Your task to perform on an android device: visit the assistant section in the google photos Image 0: 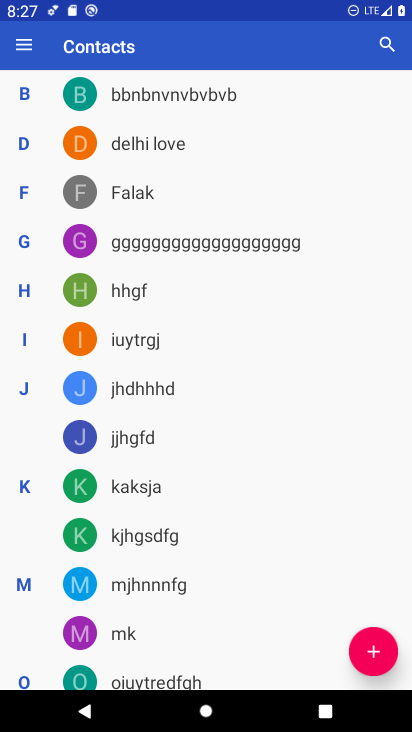
Step 0: press home button
Your task to perform on an android device: visit the assistant section in the google photos Image 1: 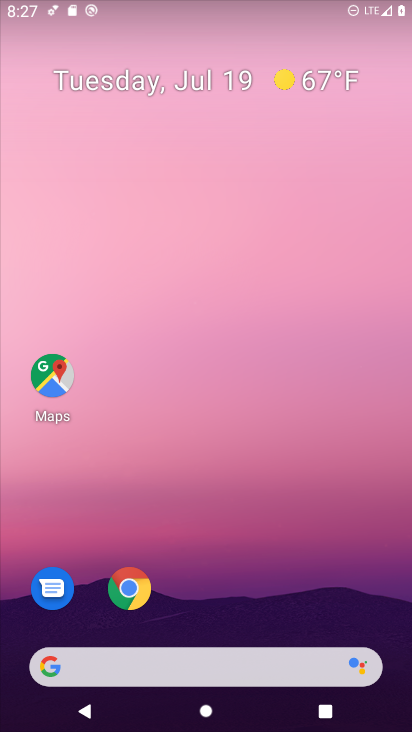
Step 1: drag from (346, 513) to (371, 68)
Your task to perform on an android device: visit the assistant section in the google photos Image 2: 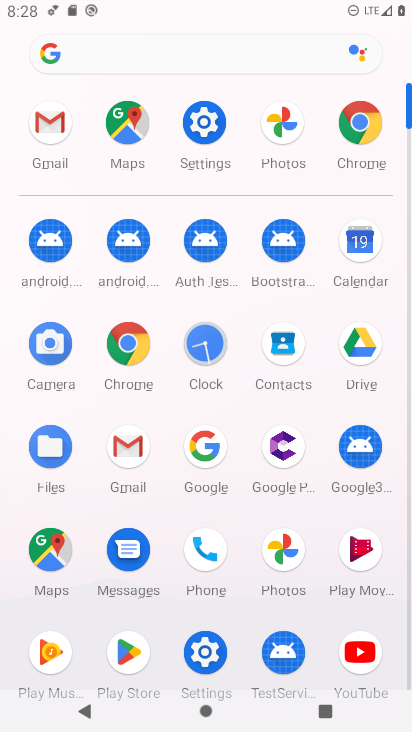
Step 2: click (286, 546)
Your task to perform on an android device: visit the assistant section in the google photos Image 3: 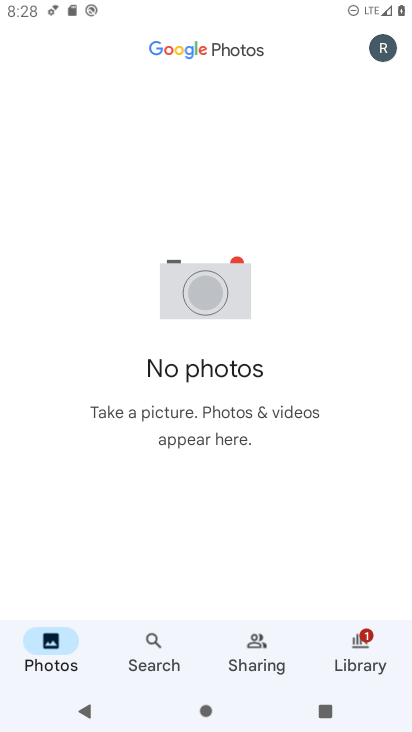
Step 3: click (357, 630)
Your task to perform on an android device: visit the assistant section in the google photos Image 4: 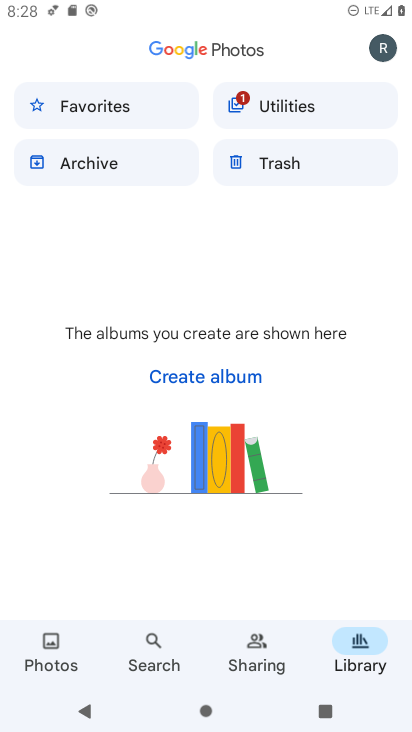
Step 4: task complete